Your task to perform on an android device: search for starred emails in the gmail app Image 0: 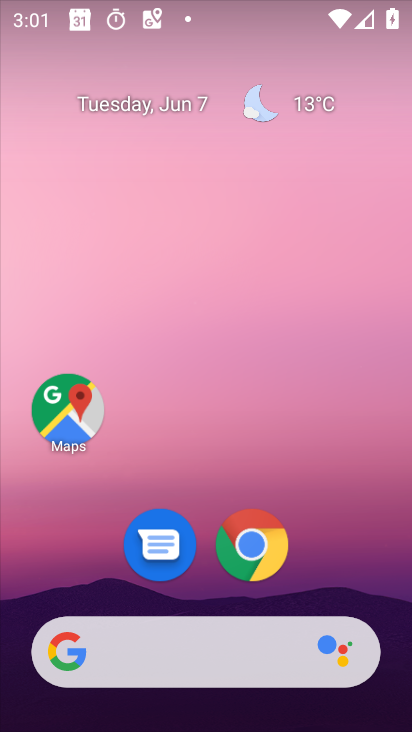
Step 0: drag from (352, 518) to (263, 37)
Your task to perform on an android device: search for starred emails in the gmail app Image 1: 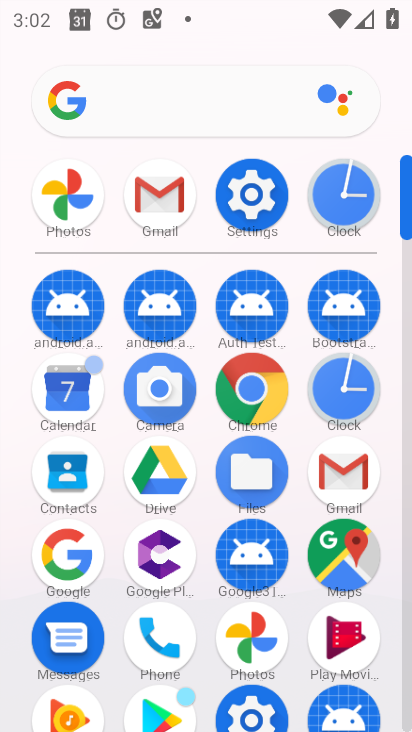
Step 1: click (157, 192)
Your task to perform on an android device: search for starred emails in the gmail app Image 2: 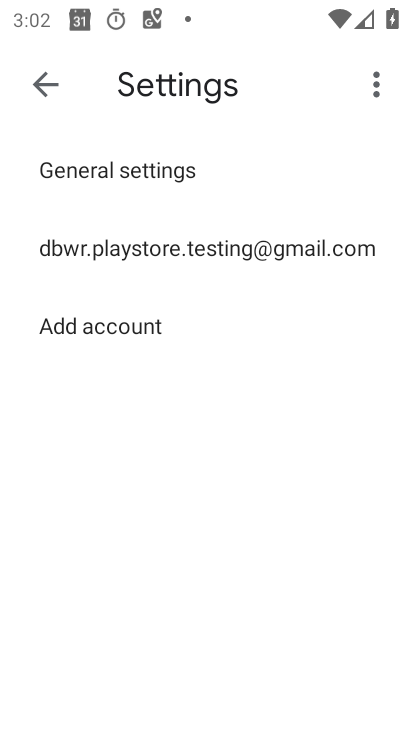
Step 2: click (47, 90)
Your task to perform on an android device: search for starred emails in the gmail app Image 3: 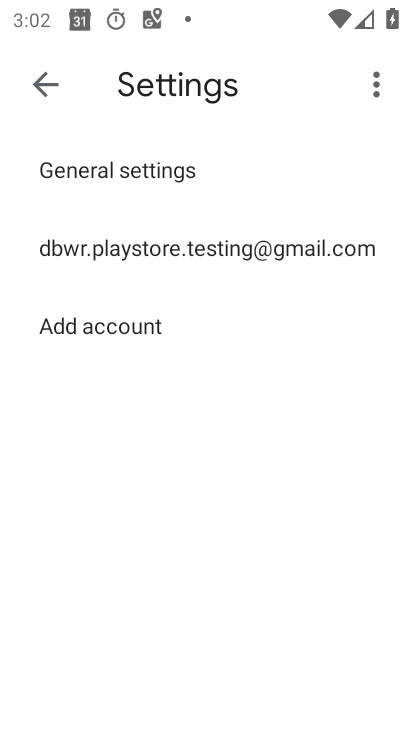
Step 3: click (41, 79)
Your task to perform on an android device: search for starred emails in the gmail app Image 4: 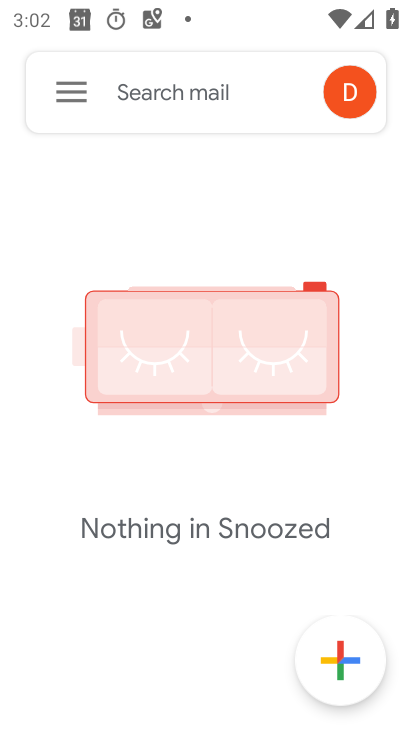
Step 4: click (169, 96)
Your task to perform on an android device: search for starred emails in the gmail app Image 5: 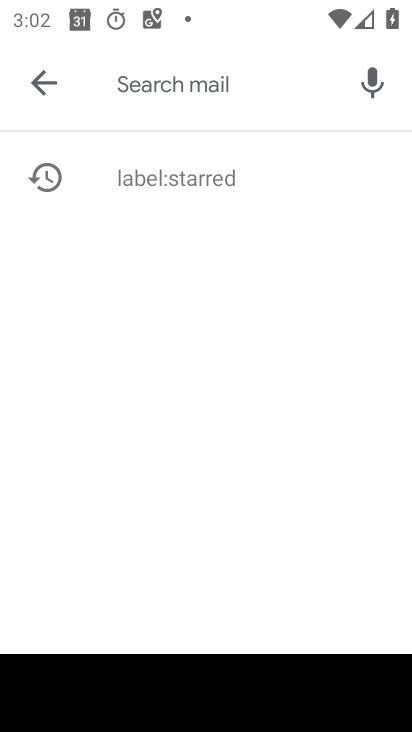
Step 5: click (253, 187)
Your task to perform on an android device: search for starred emails in the gmail app Image 6: 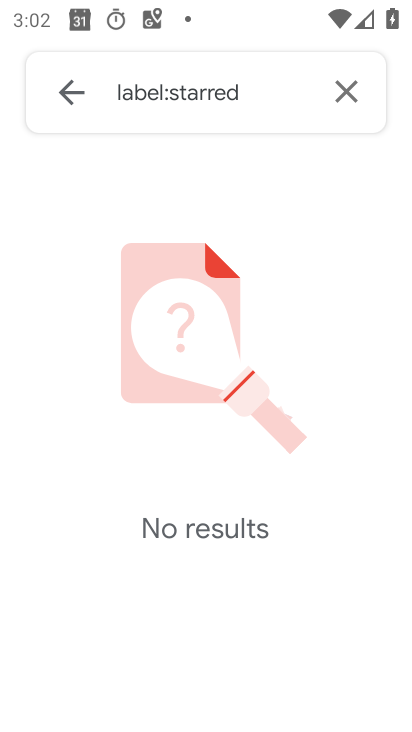
Step 6: task complete